Your task to perform on an android device: Open Google Maps Image 0: 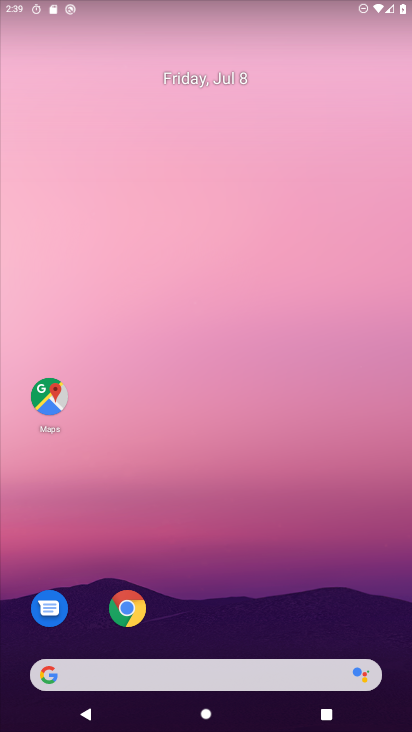
Step 0: drag from (244, 686) to (239, 69)
Your task to perform on an android device: Open Google Maps Image 1: 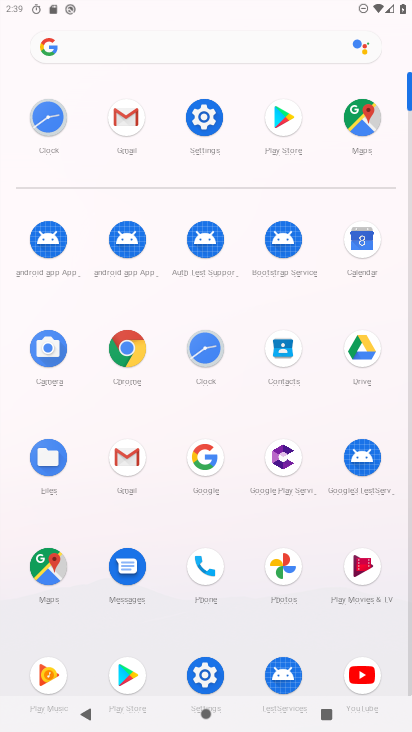
Step 1: click (45, 562)
Your task to perform on an android device: Open Google Maps Image 2: 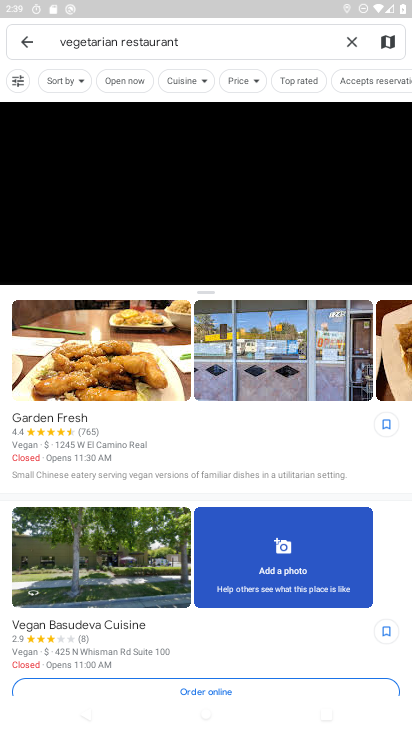
Step 2: task complete